Your task to perform on an android device: toggle location history Image 0: 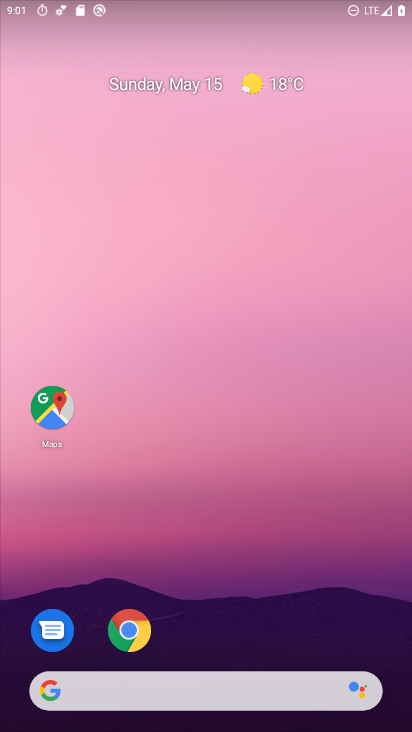
Step 0: drag from (191, 638) to (306, 44)
Your task to perform on an android device: toggle location history Image 1: 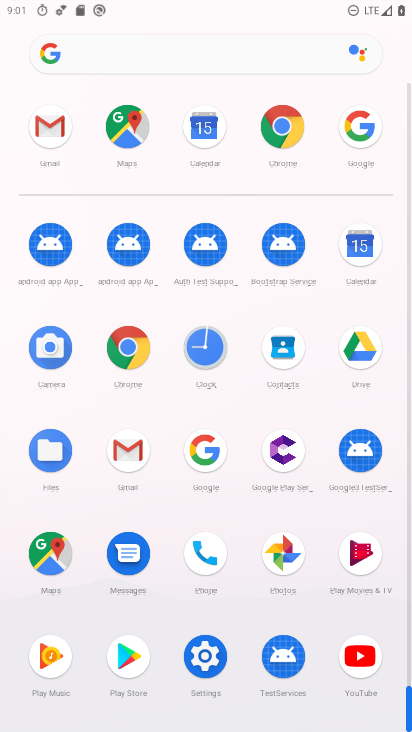
Step 1: click (197, 661)
Your task to perform on an android device: toggle location history Image 2: 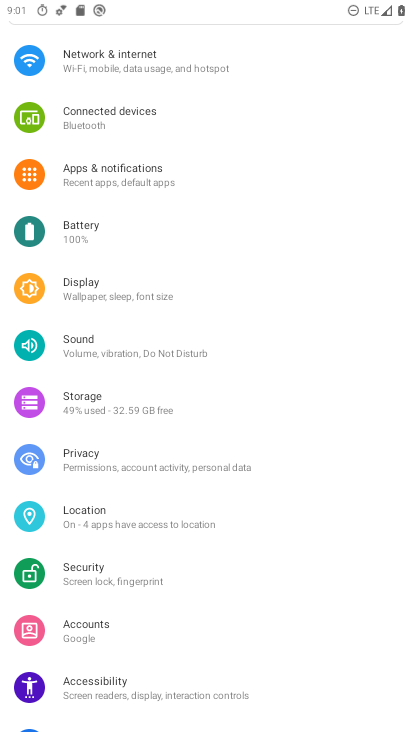
Step 2: click (95, 519)
Your task to perform on an android device: toggle location history Image 3: 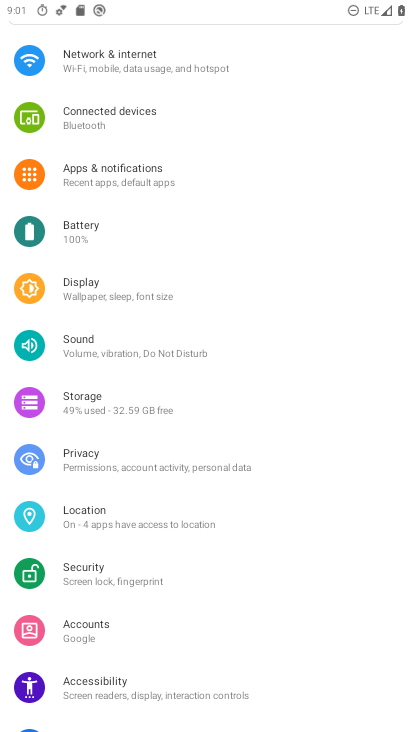
Step 3: click (95, 519)
Your task to perform on an android device: toggle location history Image 4: 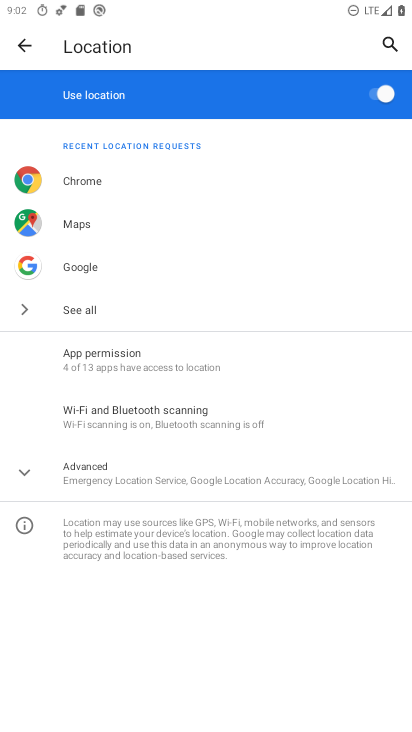
Step 4: click (75, 472)
Your task to perform on an android device: toggle location history Image 5: 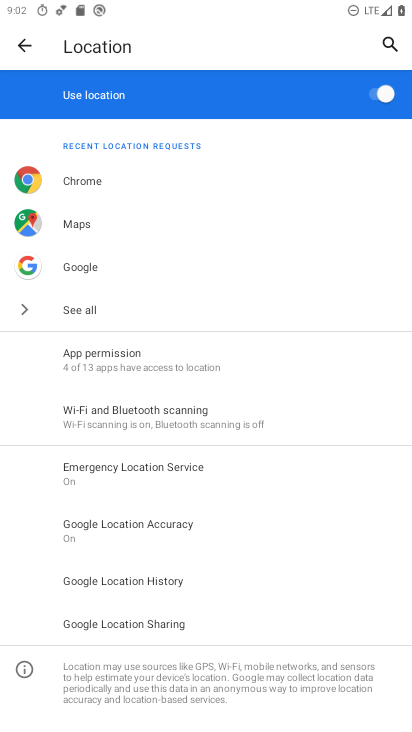
Step 5: click (143, 580)
Your task to perform on an android device: toggle location history Image 6: 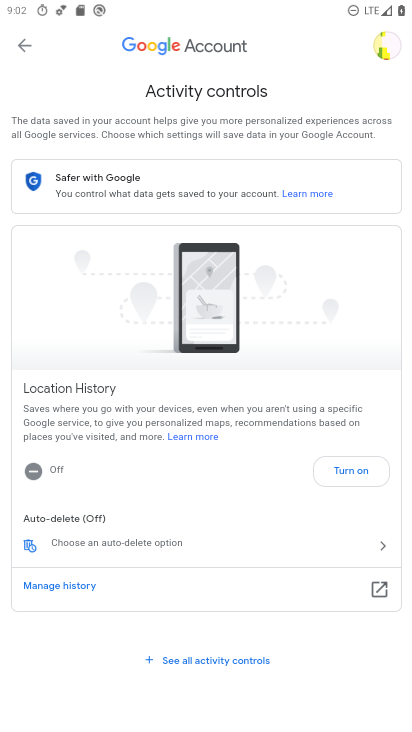
Step 6: click (369, 469)
Your task to perform on an android device: toggle location history Image 7: 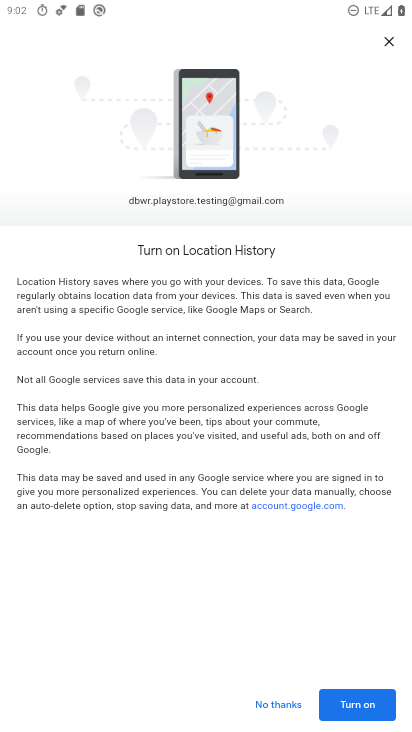
Step 7: click (359, 717)
Your task to perform on an android device: toggle location history Image 8: 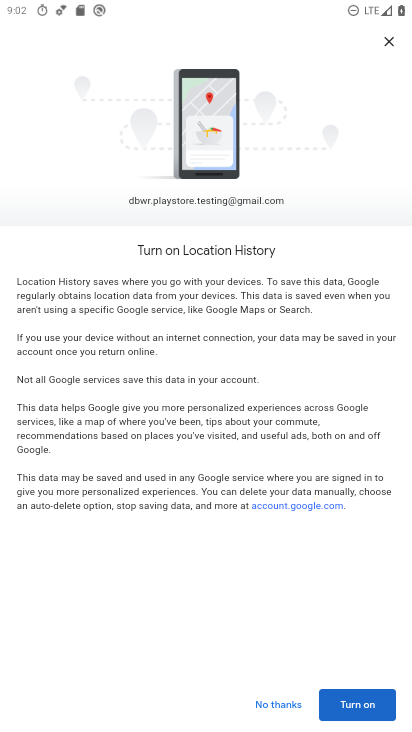
Step 8: task complete